Your task to perform on an android device: change the clock display to digital Image 0: 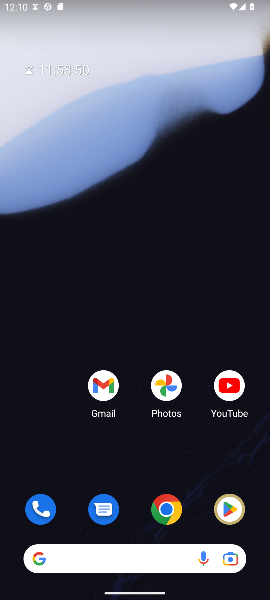
Step 0: press home button
Your task to perform on an android device: change the clock display to digital Image 1: 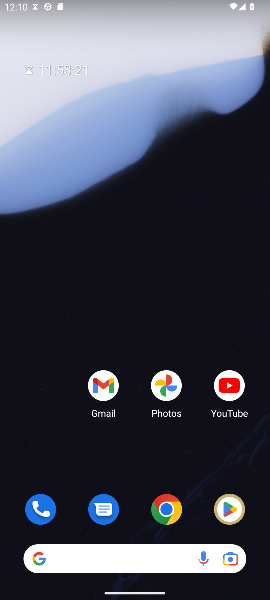
Step 1: click (134, 517)
Your task to perform on an android device: change the clock display to digital Image 2: 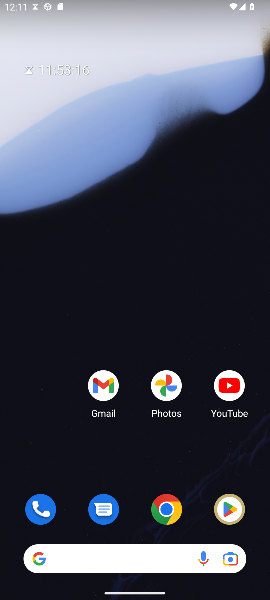
Step 2: drag from (121, 491) to (241, 53)
Your task to perform on an android device: change the clock display to digital Image 3: 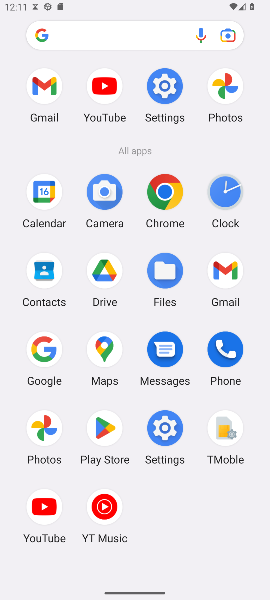
Step 3: click (232, 194)
Your task to perform on an android device: change the clock display to digital Image 4: 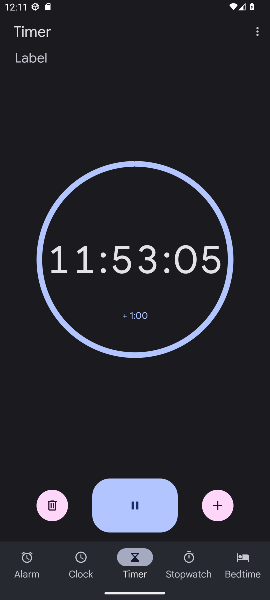
Step 4: click (253, 36)
Your task to perform on an android device: change the clock display to digital Image 5: 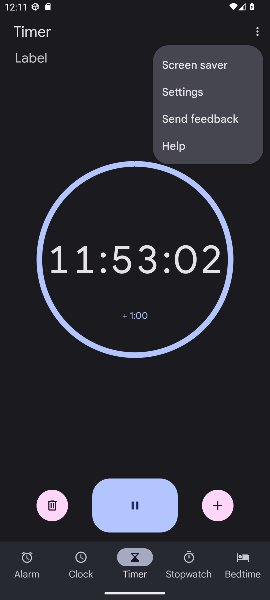
Step 5: click (165, 101)
Your task to perform on an android device: change the clock display to digital Image 6: 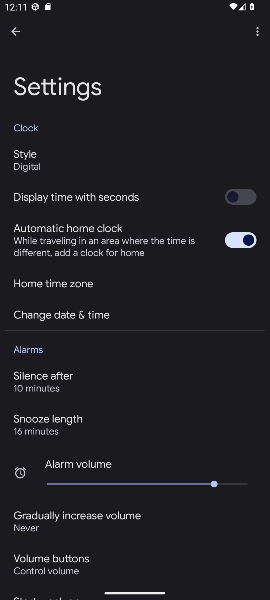
Step 6: click (33, 163)
Your task to perform on an android device: change the clock display to digital Image 7: 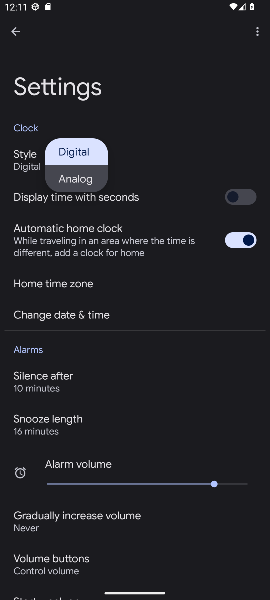
Step 7: click (71, 148)
Your task to perform on an android device: change the clock display to digital Image 8: 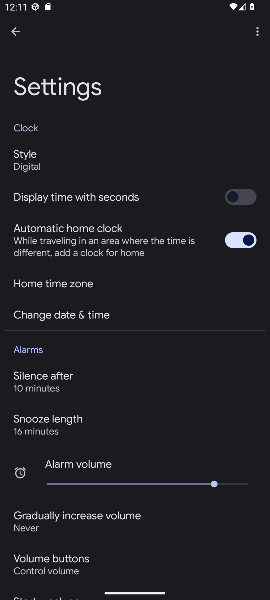
Step 8: task complete